Your task to perform on an android device: see sites visited before in the chrome app Image 0: 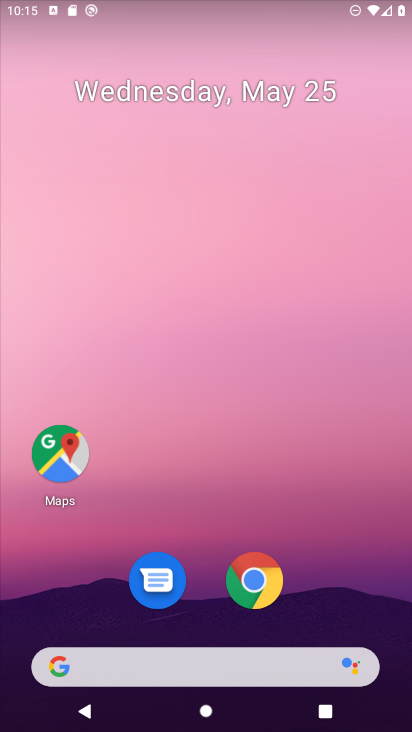
Step 0: click (256, 578)
Your task to perform on an android device: see sites visited before in the chrome app Image 1: 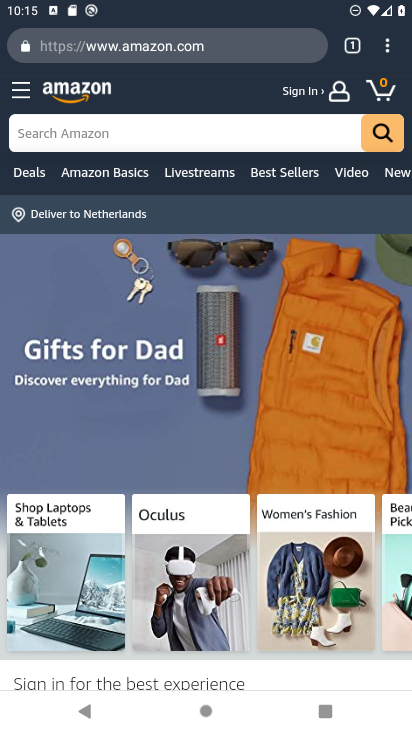
Step 1: click (379, 39)
Your task to perform on an android device: see sites visited before in the chrome app Image 2: 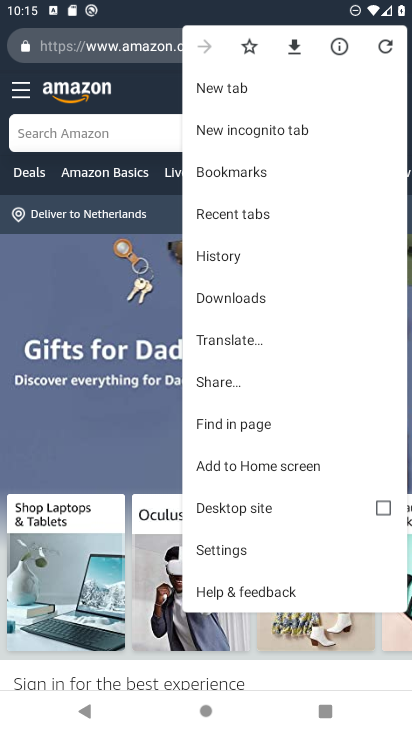
Step 2: click (211, 263)
Your task to perform on an android device: see sites visited before in the chrome app Image 3: 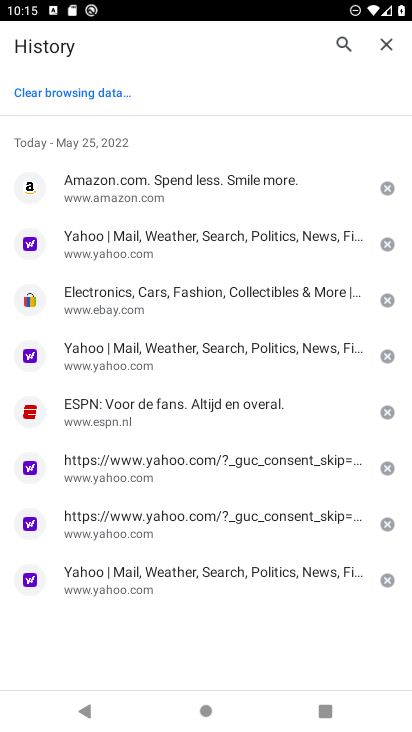
Step 3: task complete